Your task to perform on an android device: turn vacation reply on in the gmail app Image 0: 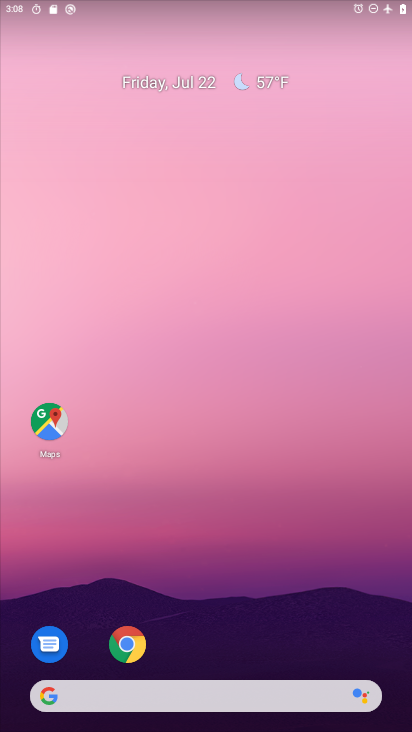
Step 0: drag from (226, 643) to (227, 170)
Your task to perform on an android device: turn vacation reply on in the gmail app Image 1: 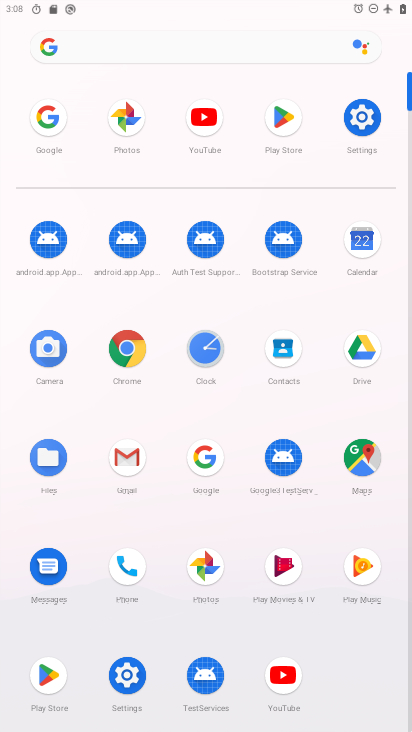
Step 1: click (130, 462)
Your task to perform on an android device: turn vacation reply on in the gmail app Image 2: 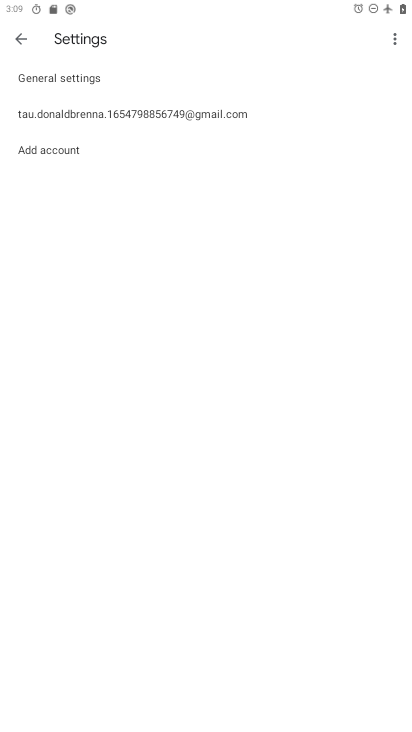
Step 2: click (92, 122)
Your task to perform on an android device: turn vacation reply on in the gmail app Image 3: 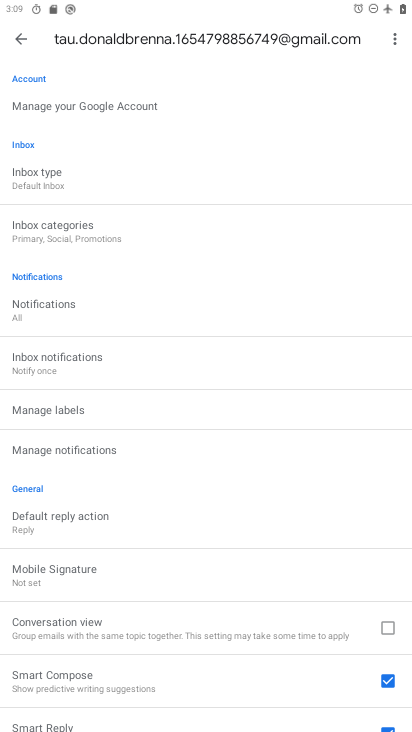
Step 3: drag from (119, 625) to (138, 273)
Your task to perform on an android device: turn vacation reply on in the gmail app Image 4: 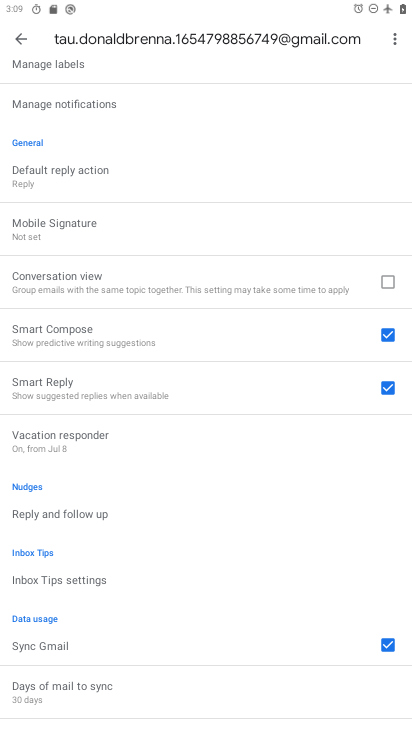
Step 4: click (74, 458)
Your task to perform on an android device: turn vacation reply on in the gmail app Image 5: 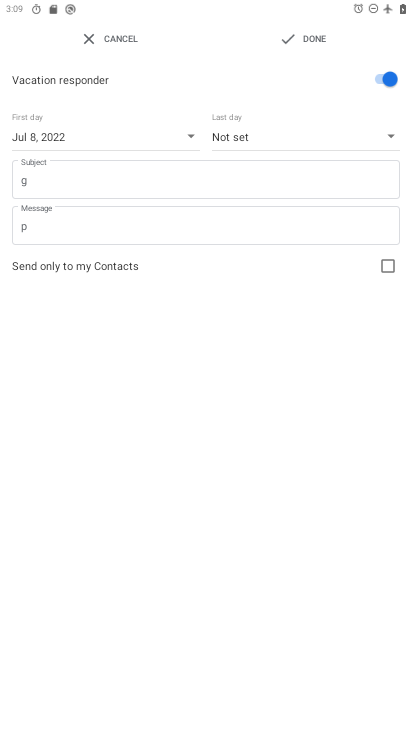
Step 5: task complete